Your task to perform on an android device: Open Youtube and go to the subscriptions tab Image 0: 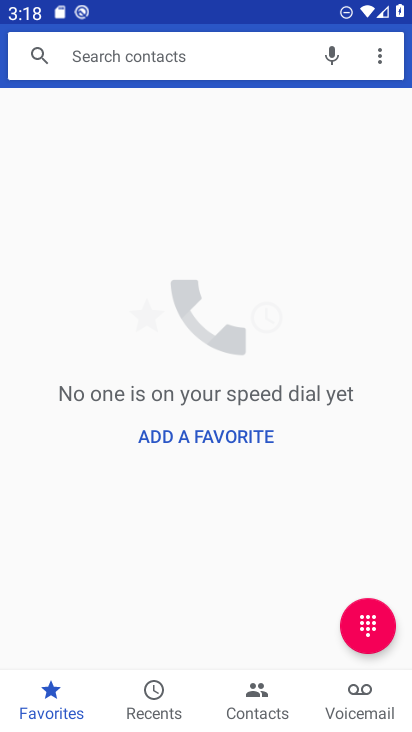
Step 0: press home button
Your task to perform on an android device: Open Youtube and go to the subscriptions tab Image 1: 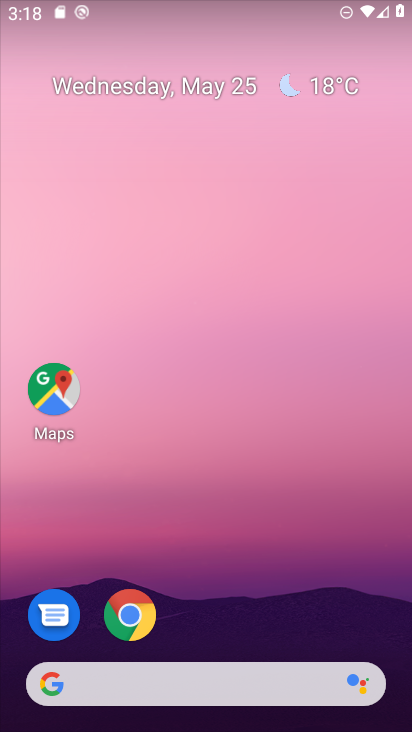
Step 1: drag from (253, 526) to (246, 3)
Your task to perform on an android device: Open Youtube and go to the subscriptions tab Image 2: 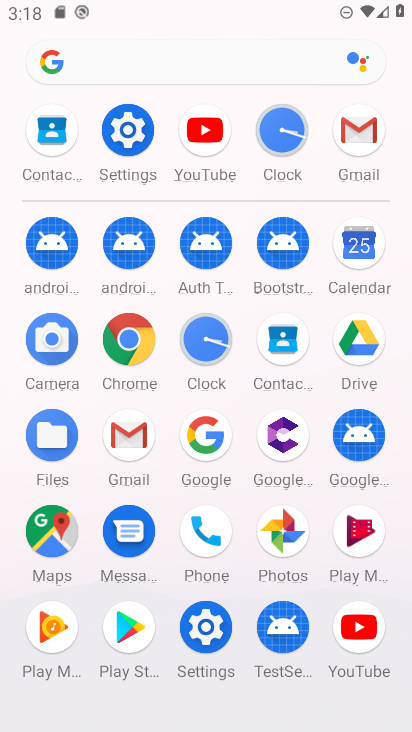
Step 2: click (349, 619)
Your task to perform on an android device: Open Youtube and go to the subscriptions tab Image 3: 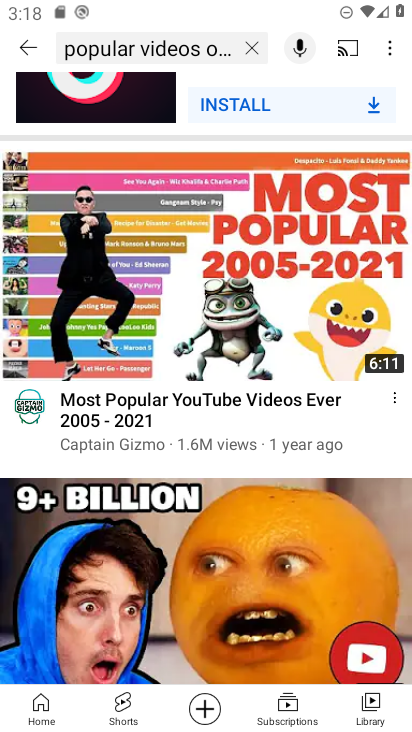
Step 3: click (300, 710)
Your task to perform on an android device: Open Youtube and go to the subscriptions tab Image 4: 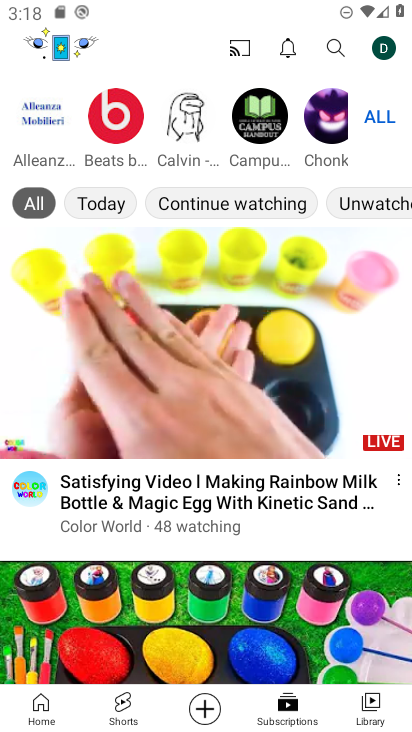
Step 4: task complete